Your task to perform on an android device: Open settings Image 0: 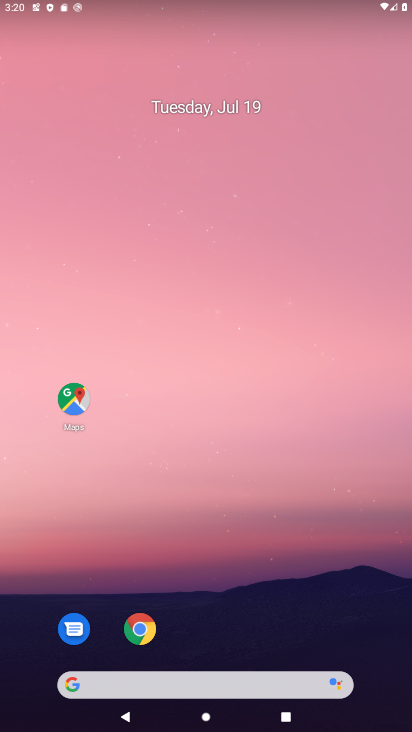
Step 0: drag from (202, 498) to (210, 159)
Your task to perform on an android device: Open settings Image 1: 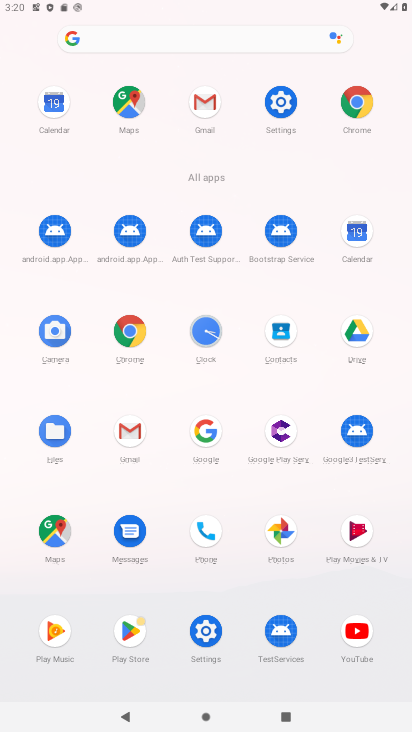
Step 1: click (277, 98)
Your task to perform on an android device: Open settings Image 2: 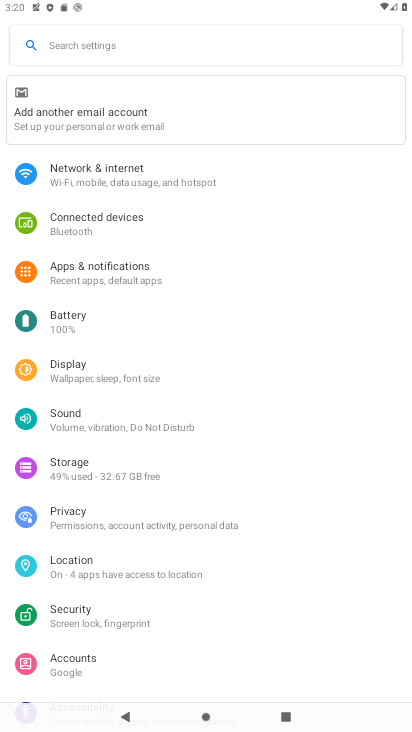
Step 2: task complete